Your task to perform on an android device: Do I have any events today? Image 0: 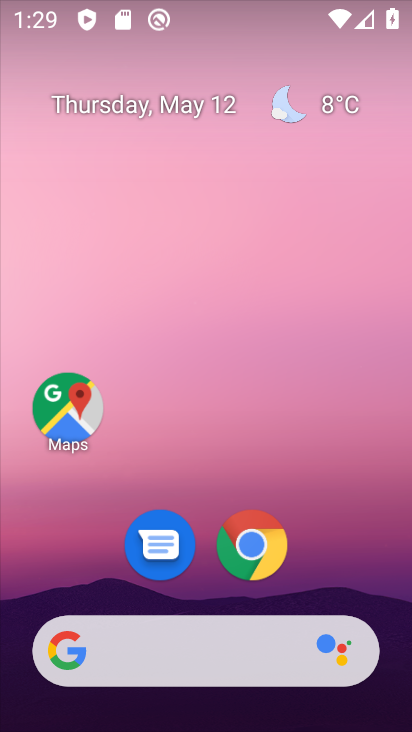
Step 0: drag from (185, 608) to (246, 178)
Your task to perform on an android device: Do I have any events today? Image 1: 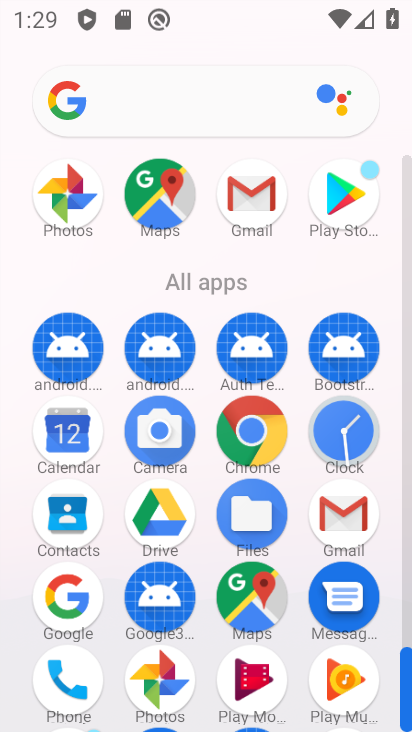
Step 1: click (62, 440)
Your task to perform on an android device: Do I have any events today? Image 2: 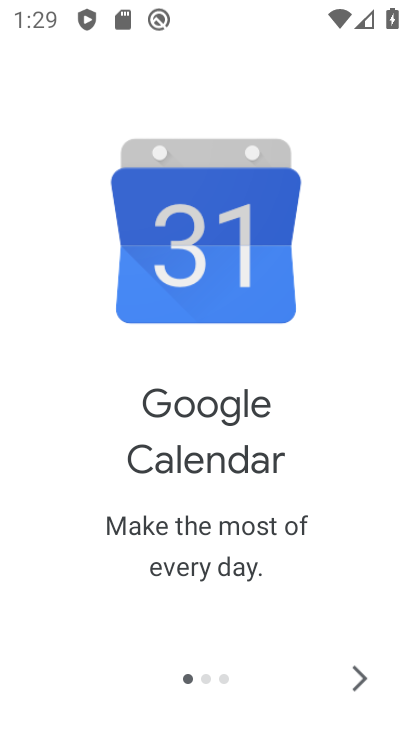
Step 2: click (368, 673)
Your task to perform on an android device: Do I have any events today? Image 3: 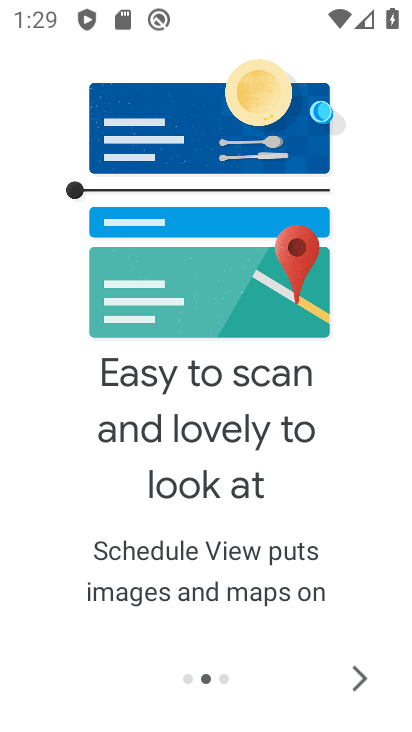
Step 3: click (340, 660)
Your task to perform on an android device: Do I have any events today? Image 4: 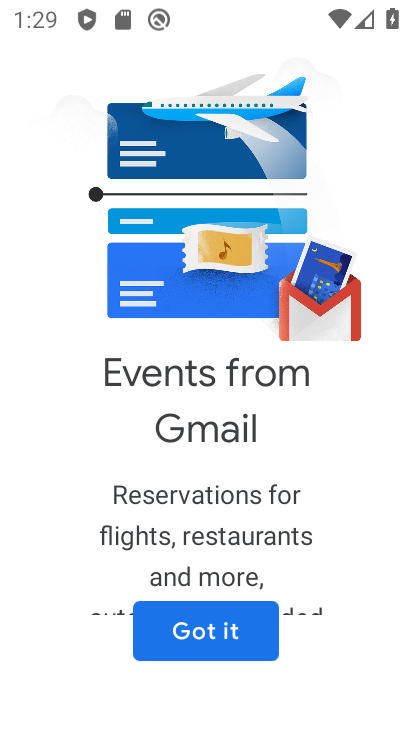
Step 4: click (195, 633)
Your task to perform on an android device: Do I have any events today? Image 5: 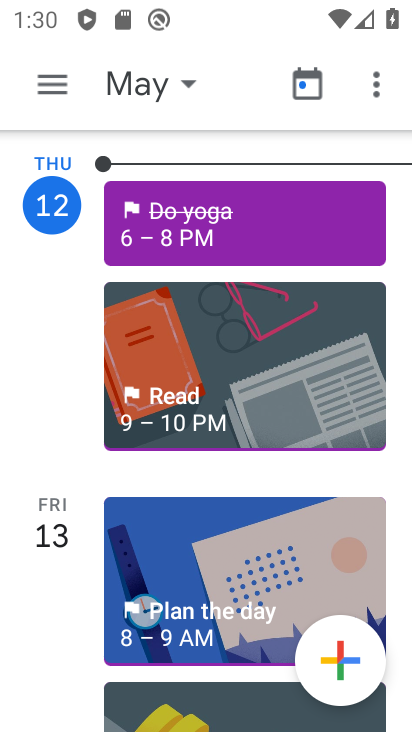
Step 5: click (265, 226)
Your task to perform on an android device: Do I have any events today? Image 6: 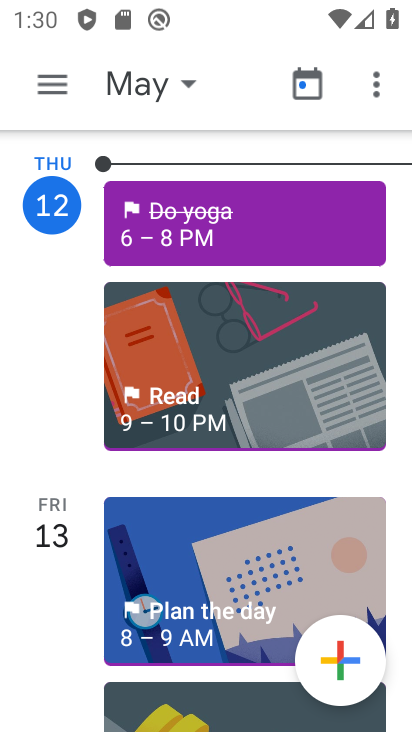
Step 6: task complete